Your task to perform on an android device: change the upload size in google photos Image 0: 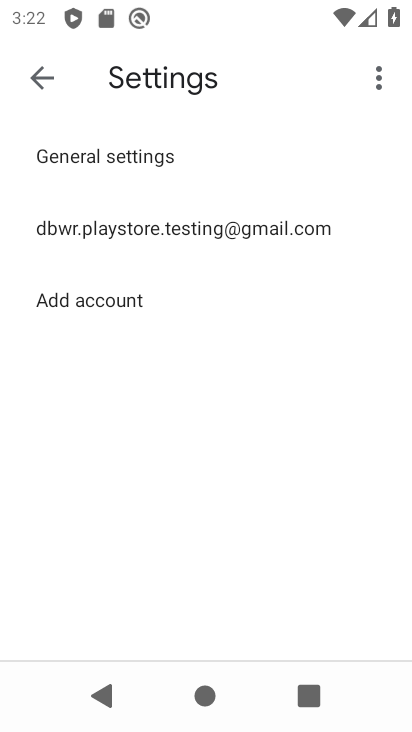
Step 0: press back button
Your task to perform on an android device: change the upload size in google photos Image 1: 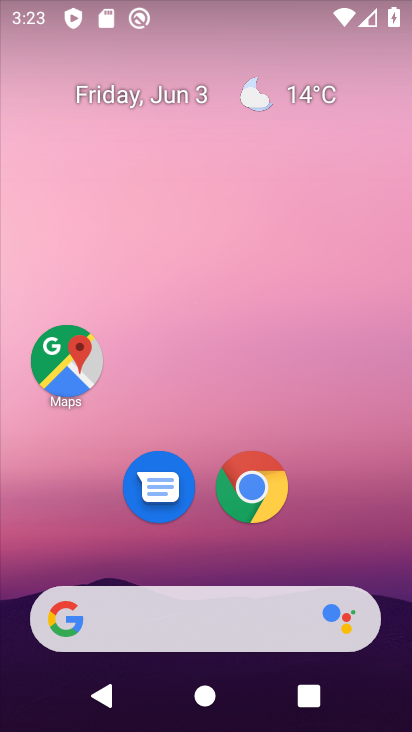
Step 1: drag from (183, 557) to (283, 23)
Your task to perform on an android device: change the upload size in google photos Image 2: 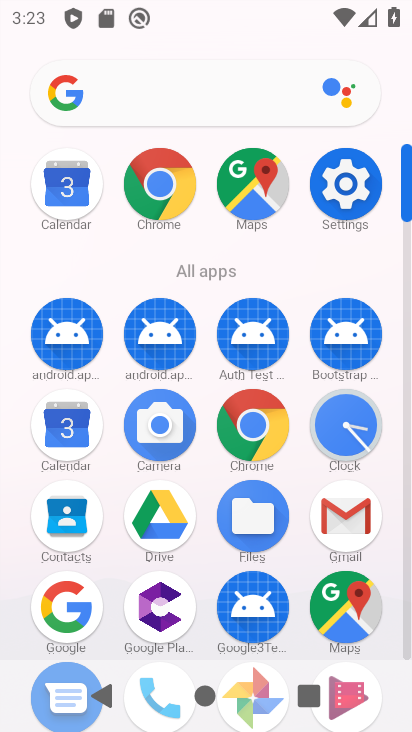
Step 2: drag from (212, 583) to (302, 174)
Your task to perform on an android device: change the upload size in google photos Image 3: 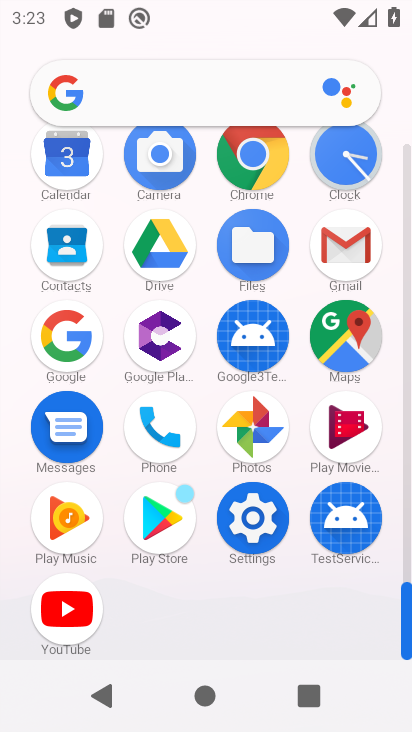
Step 3: click (253, 416)
Your task to perform on an android device: change the upload size in google photos Image 4: 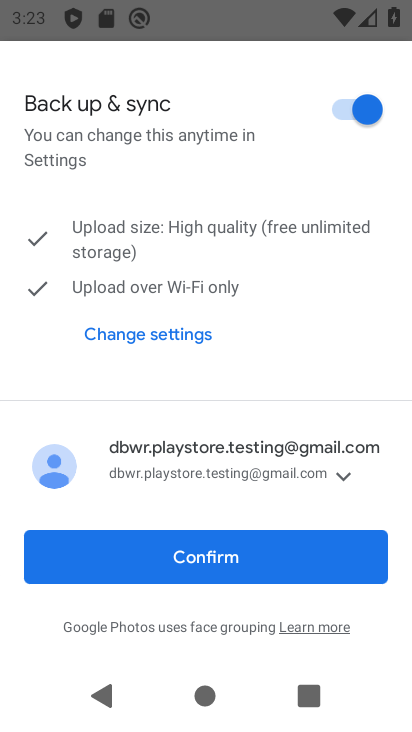
Step 4: click (205, 563)
Your task to perform on an android device: change the upload size in google photos Image 5: 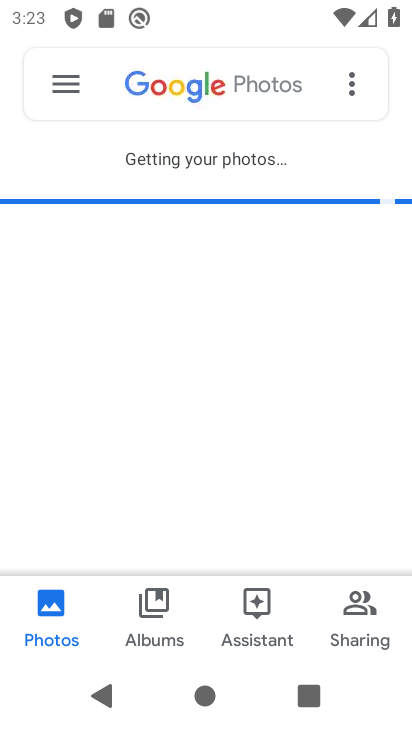
Step 5: click (57, 79)
Your task to perform on an android device: change the upload size in google photos Image 6: 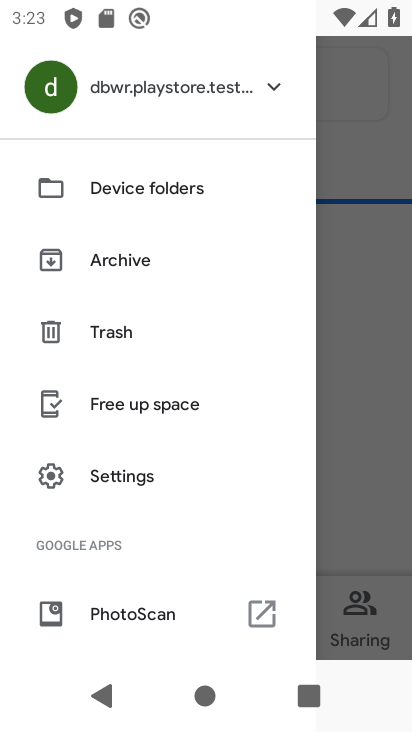
Step 6: click (128, 484)
Your task to perform on an android device: change the upload size in google photos Image 7: 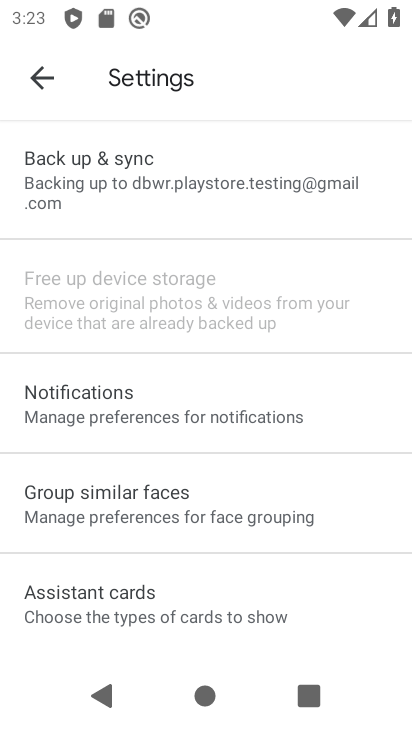
Step 7: click (112, 165)
Your task to perform on an android device: change the upload size in google photos Image 8: 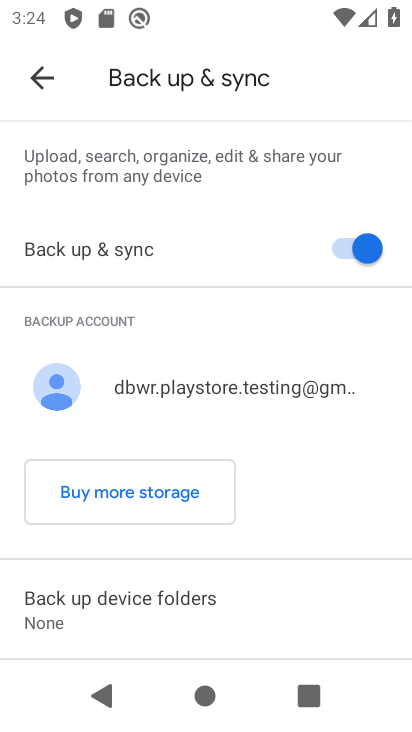
Step 8: drag from (172, 592) to (240, 143)
Your task to perform on an android device: change the upload size in google photos Image 9: 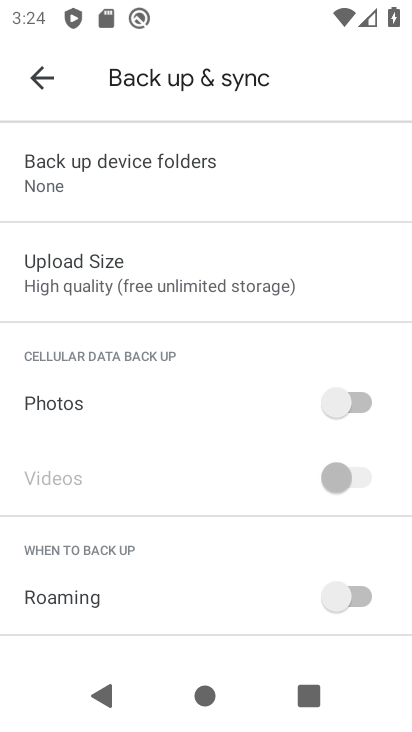
Step 9: click (94, 268)
Your task to perform on an android device: change the upload size in google photos Image 10: 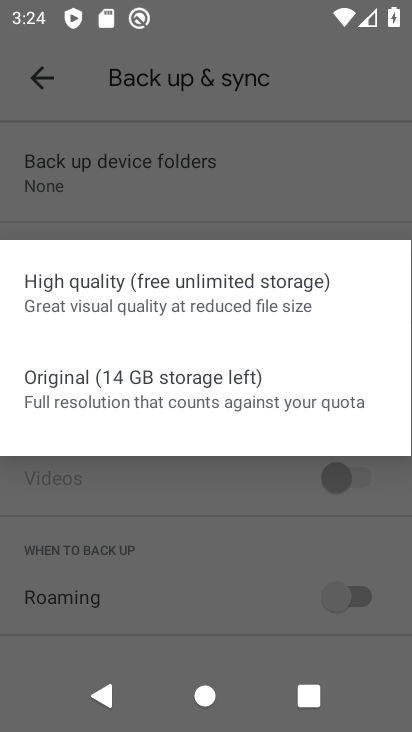
Step 10: click (134, 583)
Your task to perform on an android device: change the upload size in google photos Image 11: 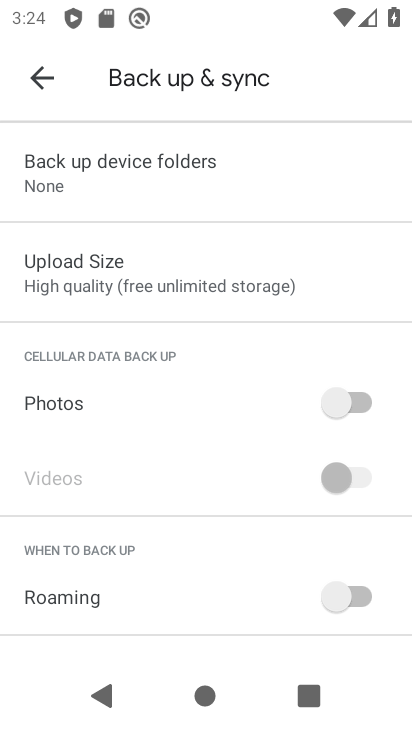
Step 11: click (88, 286)
Your task to perform on an android device: change the upload size in google photos Image 12: 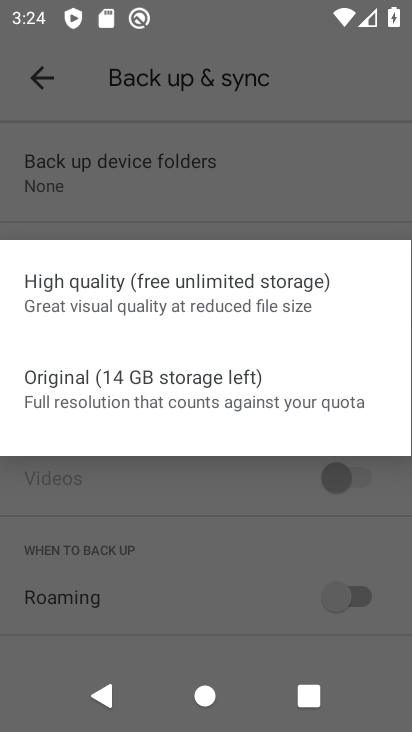
Step 12: click (115, 408)
Your task to perform on an android device: change the upload size in google photos Image 13: 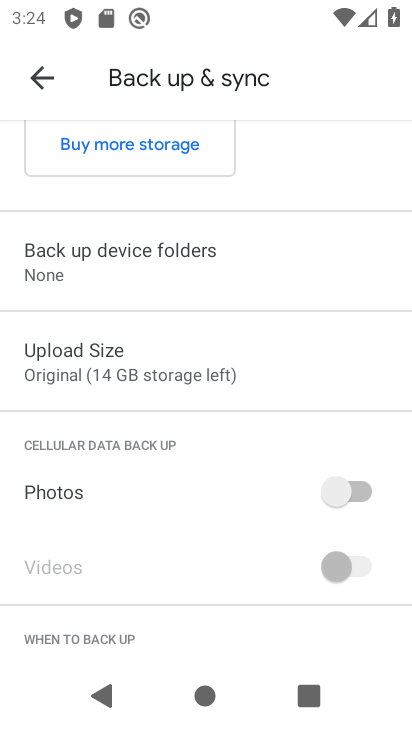
Step 13: task complete